Your task to perform on an android device: Show the shopping cart on bestbuy.com. Image 0: 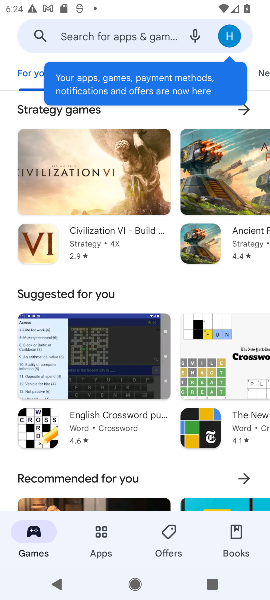
Step 0: press home button
Your task to perform on an android device: Show the shopping cart on bestbuy.com. Image 1: 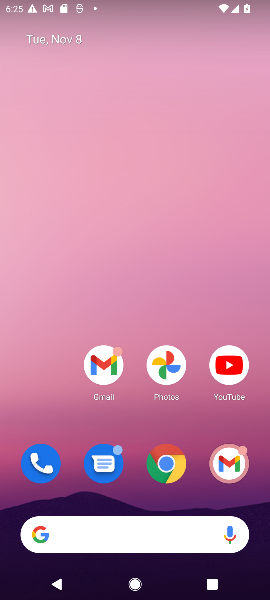
Step 1: click (164, 456)
Your task to perform on an android device: Show the shopping cart on bestbuy.com. Image 2: 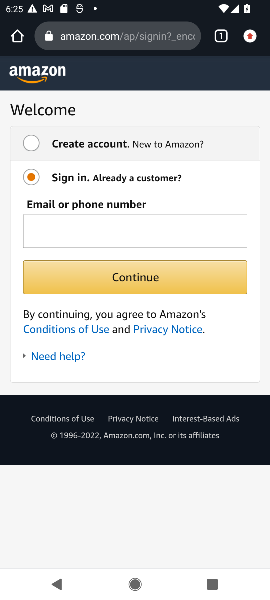
Step 2: click (95, 42)
Your task to perform on an android device: Show the shopping cart on bestbuy.com. Image 3: 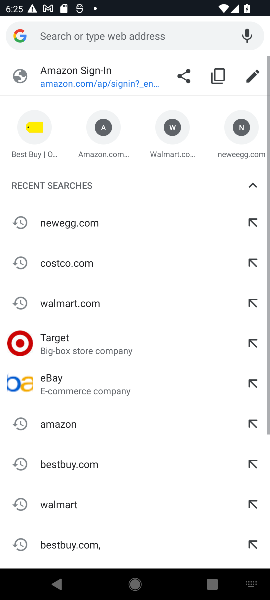
Step 3: click (20, 133)
Your task to perform on an android device: Show the shopping cart on bestbuy.com. Image 4: 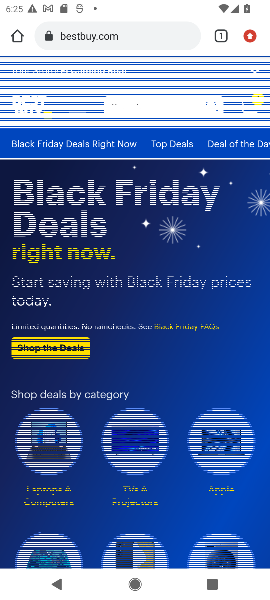
Step 4: click (249, 99)
Your task to perform on an android device: Show the shopping cart on bestbuy.com. Image 5: 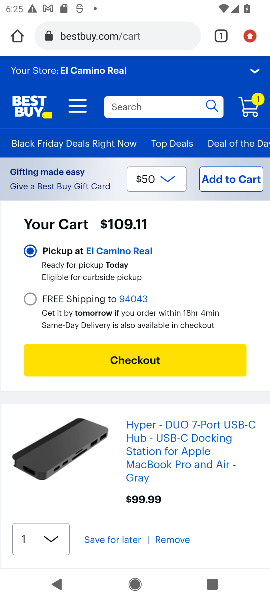
Step 5: task complete